Your task to perform on an android device: Open location settings Image 0: 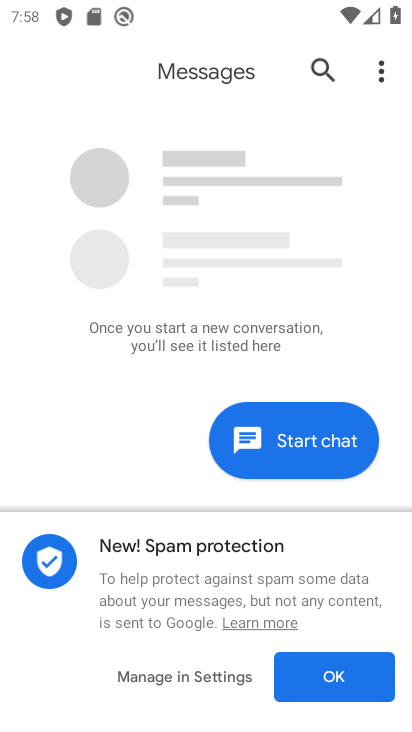
Step 0: click (309, 543)
Your task to perform on an android device: Open location settings Image 1: 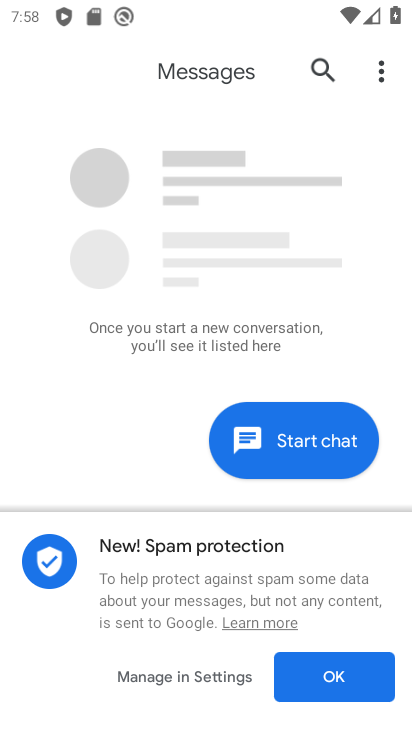
Step 1: press home button
Your task to perform on an android device: Open location settings Image 2: 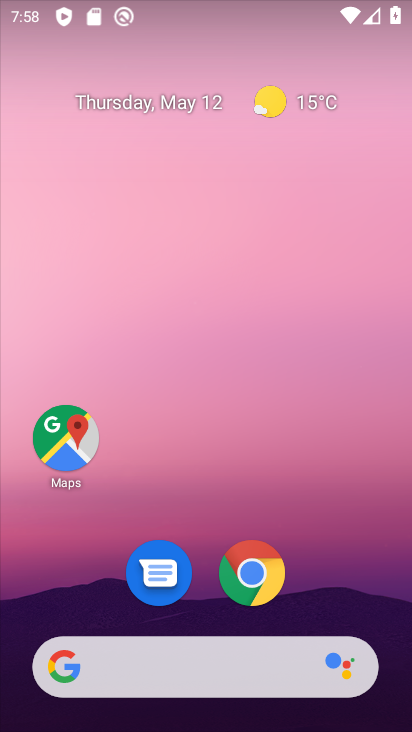
Step 2: drag from (337, 505) to (194, 25)
Your task to perform on an android device: Open location settings Image 3: 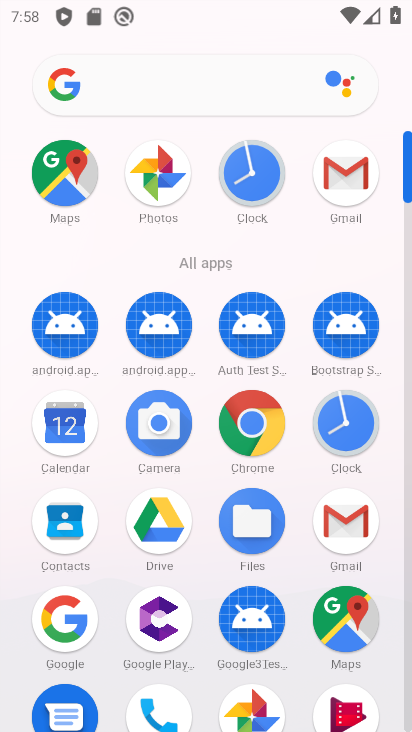
Step 3: drag from (212, 636) to (146, 358)
Your task to perform on an android device: Open location settings Image 4: 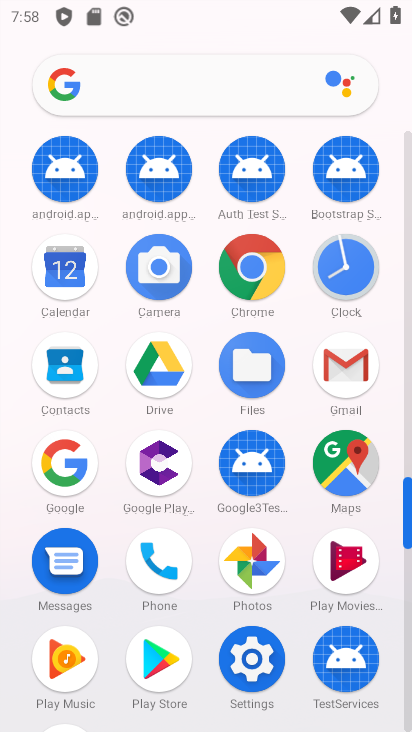
Step 4: click (257, 652)
Your task to perform on an android device: Open location settings Image 5: 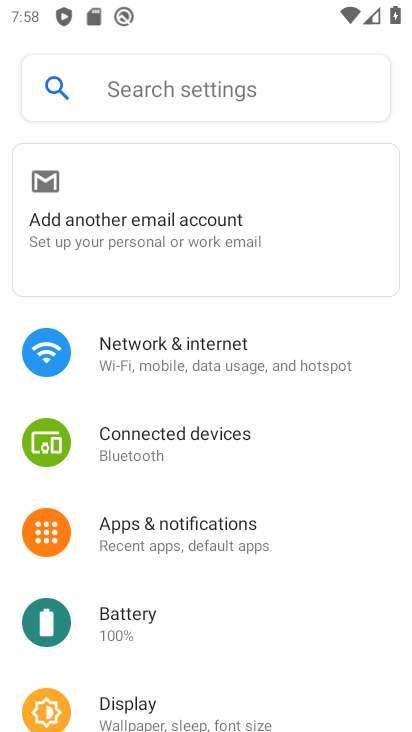
Step 5: drag from (258, 637) to (189, 290)
Your task to perform on an android device: Open location settings Image 6: 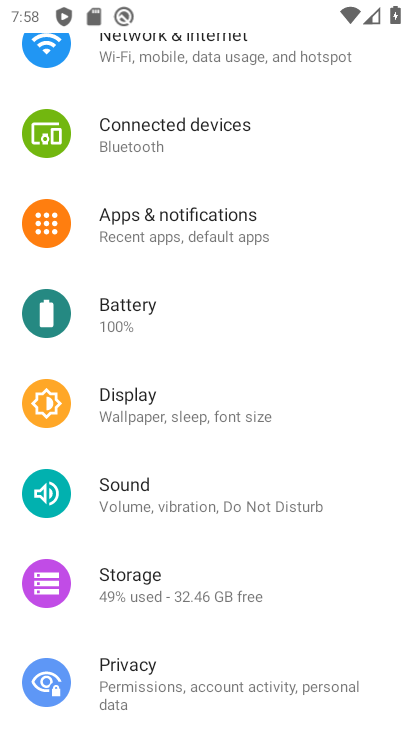
Step 6: drag from (166, 639) to (110, 331)
Your task to perform on an android device: Open location settings Image 7: 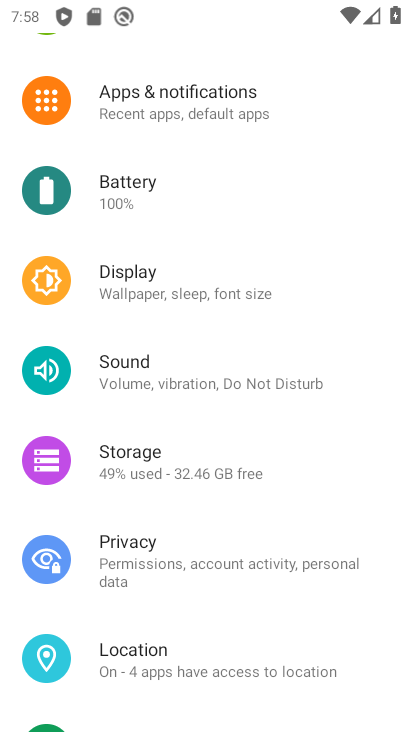
Step 7: click (142, 665)
Your task to perform on an android device: Open location settings Image 8: 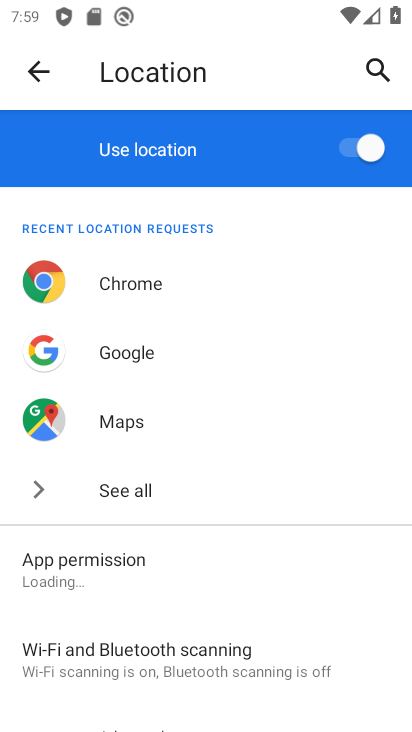
Step 8: task complete